Your task to perform on an android device: Open Google Maps Image 0: 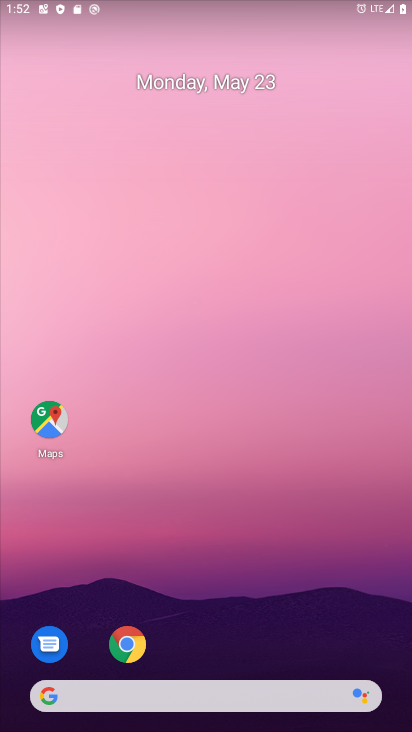
Step 0: drag from (318, 657) to (208, 4)
Your task to perform on an android device: Open Google Maps Image 1: 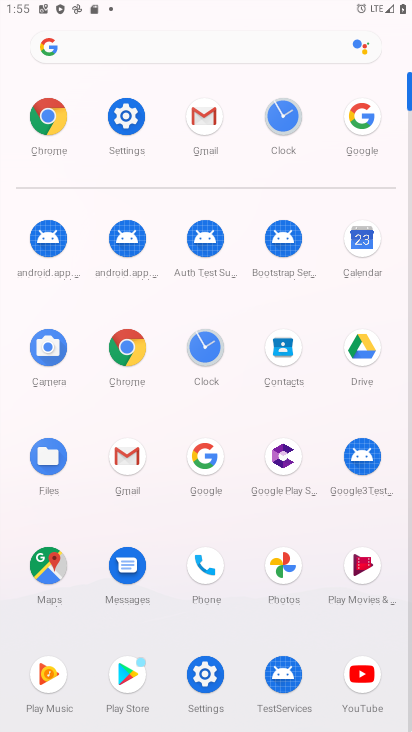
Step 1: click (59, 561)
Your task to perform on an android device: Open Google Maps Image 2: 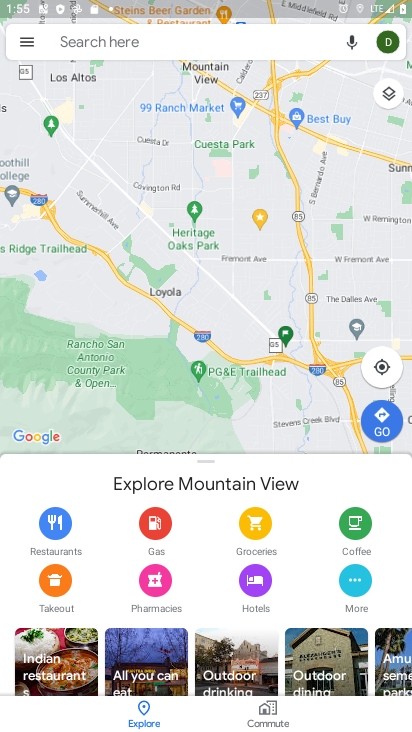
Step 2: task complete